Your task to perform on an android device: Open ESPN.com Image 0: 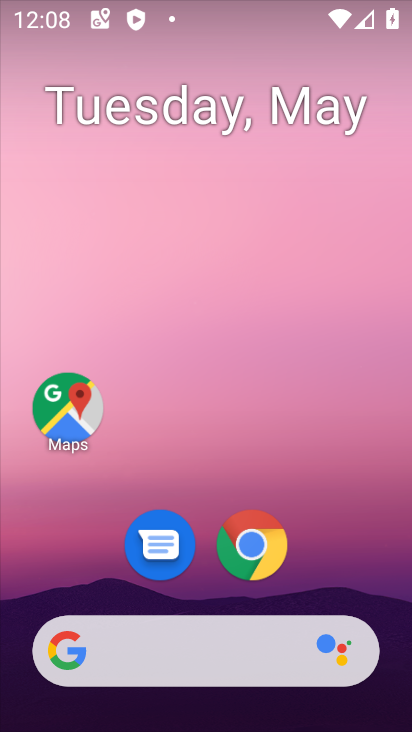
Step 0: click (260, 543)
Your task to perform on an android device: Open ESPN.com Image 1: 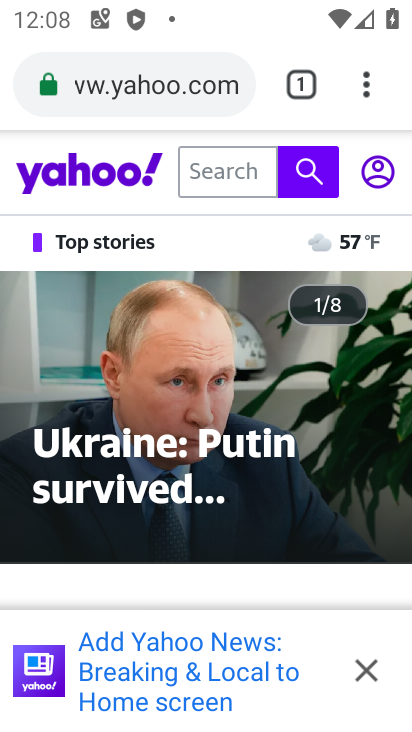
Step 1: click (390, 80)
Your task to perform on an android device: Open ESPN.com Image 2: 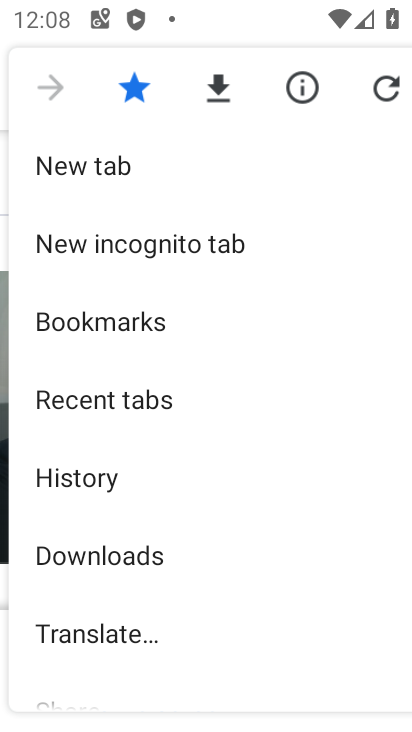
Step 2: drag from (105, 627) to (167, 278)
Your task to perform on an android device: Open ESPN.com Image 3: 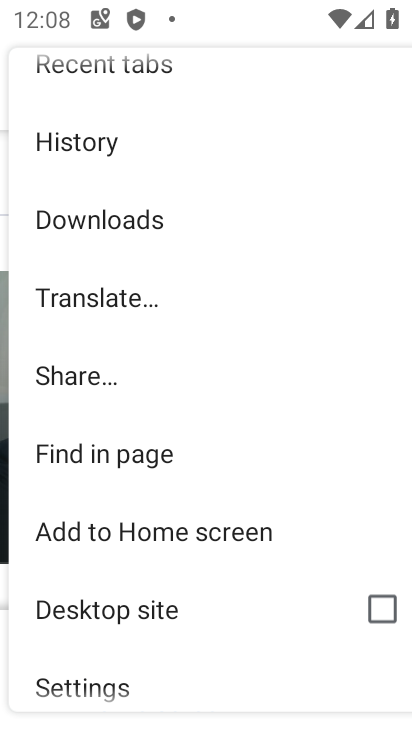
Step 3: drag from (129, 100) to (128, 649)
Your task to perform on an android device: Open ESPN.com Image 4: 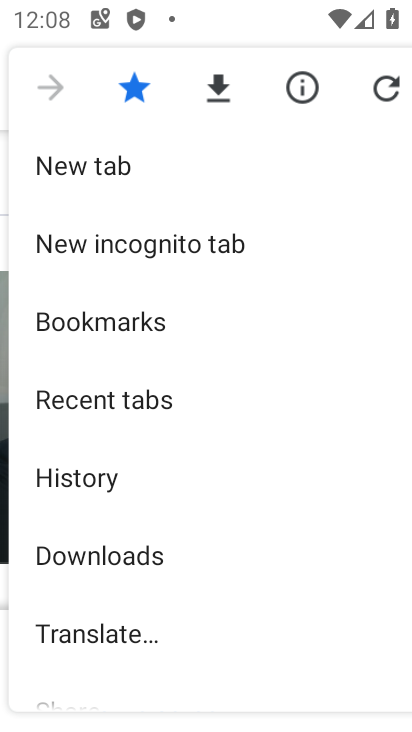
Step 4: click (143, 178)
Your task to perform on an android device: Open ESPN.com Image 5: 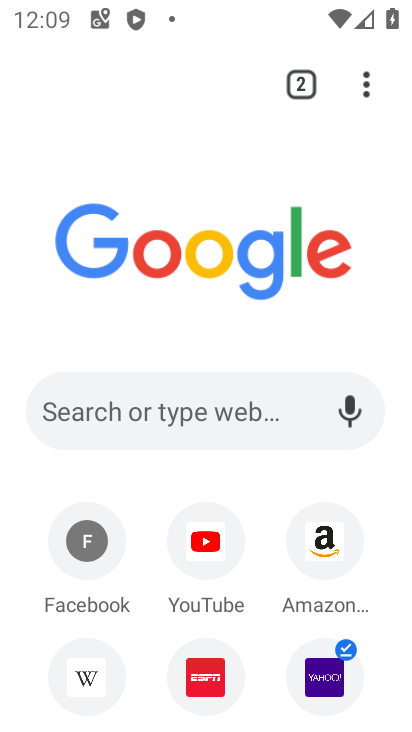
Step 5: click (213, 665)
Your task to perform on an android device: Open ESPN.com Image 6: 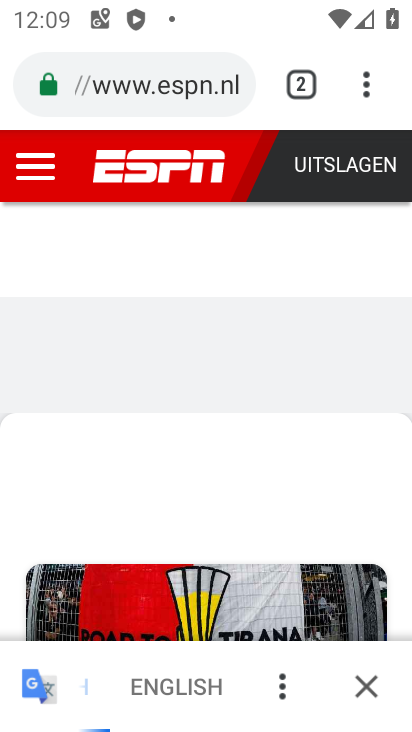
Step 6: task complete